Your task to perform on an android device: See recent photos Image 0: 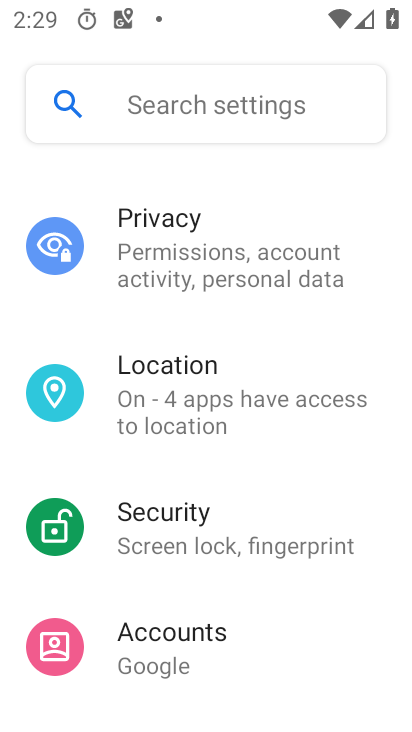
Step 0: press home button
Your task to perform on an android device: See recent photos Image 1: 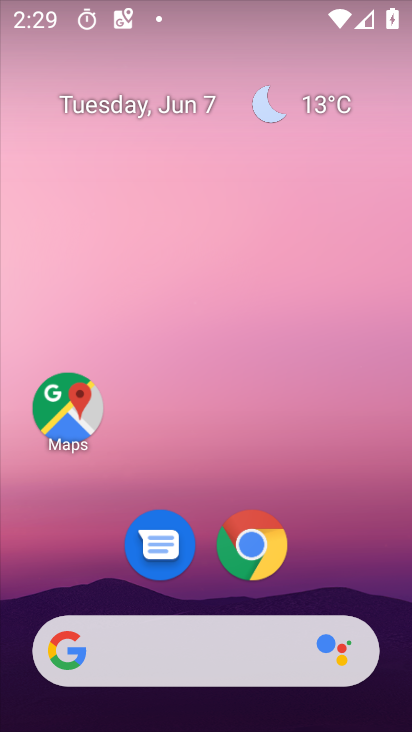
Step 1: drag from (380, 592) to (140, 2)
Your task to perform on an android device: See recent photos Image 2: 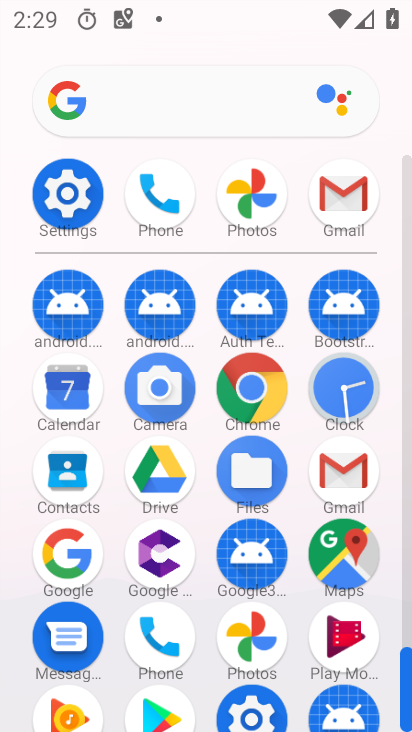
Step 2: click (255, 661)
Your task to perform on an android device: See recent photos Image 3: 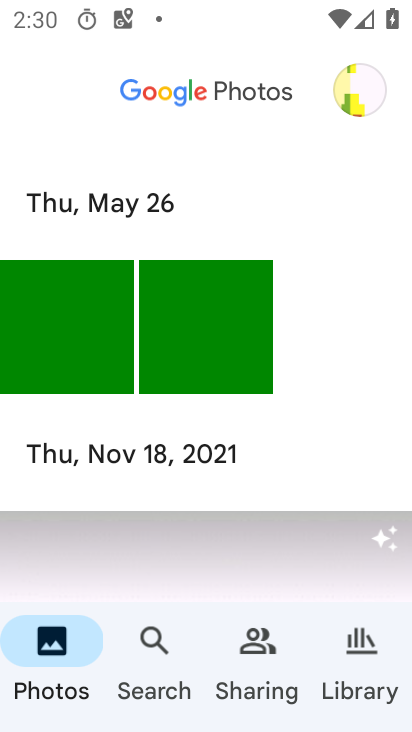
Step 3: task complete